Your task to perform on an android device: turn off javascript in the chrome app Image 0: 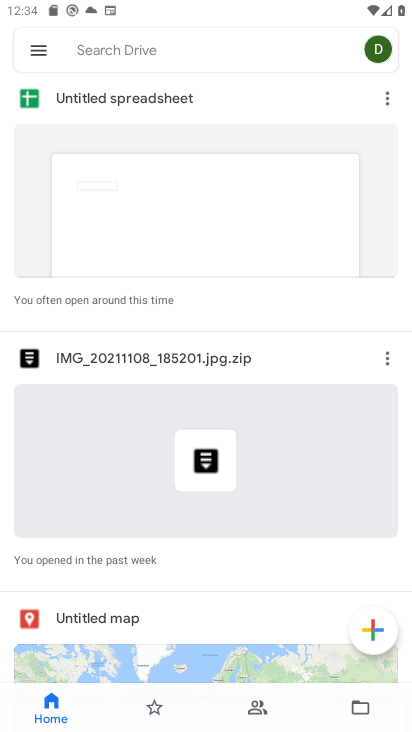
Step 0: press home button
Your task to perform on an android device: turn off javascript in the chrome app Image 1: 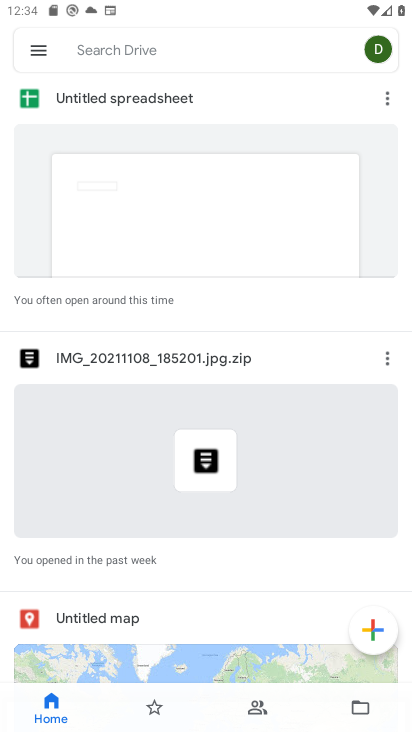
Step 1: press home button
Your task to perform on an android device: turn off javascript in the chrome app Image 2: 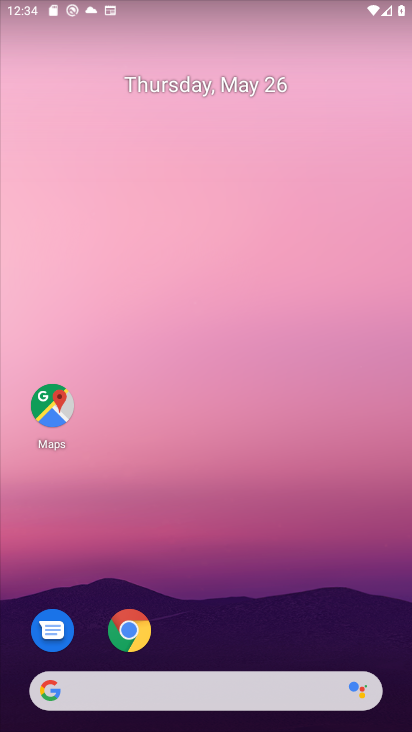
Step 2: drag from (219, 647) to (257, 12)
Your task to perform on an android device: turn off javascript in the chrome app Image 3: 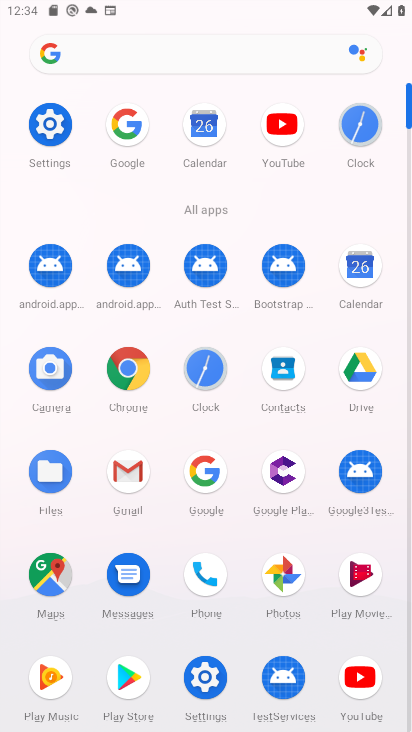
Step 3: click (126, 364)
Your task to perform on an android device: turn off javascript in the chrome app Image 4: 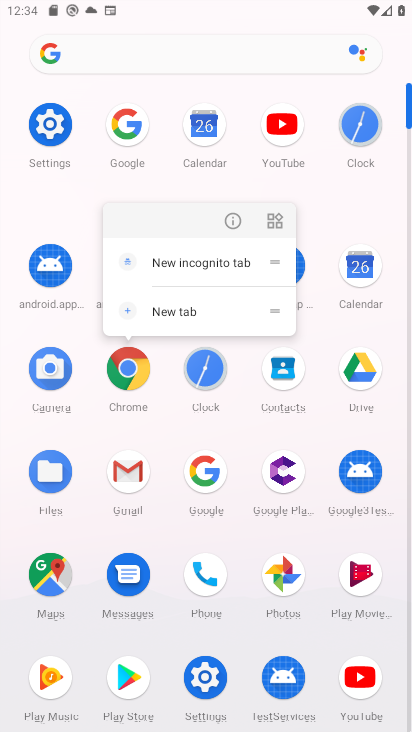
Step 4: click (124, 361)
Your task to perform on an android device: turn off javascript in the chrome app Image 5: 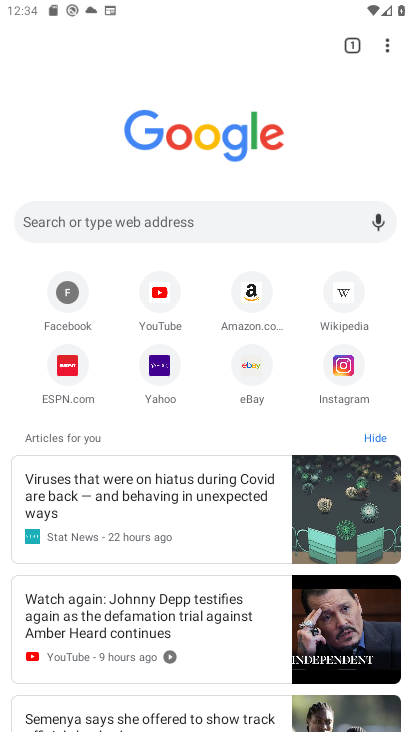
Step 5: click (386, 41)
Your task to perform on an android device: turn off javascript in the chrome app Image 6: 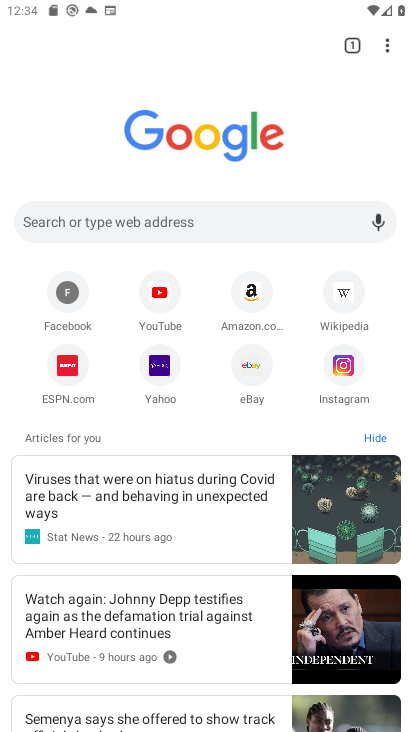
Step 6: click (384, 41)
Your task to perform on an android device: turn off javascript in the chrome app Image 7: 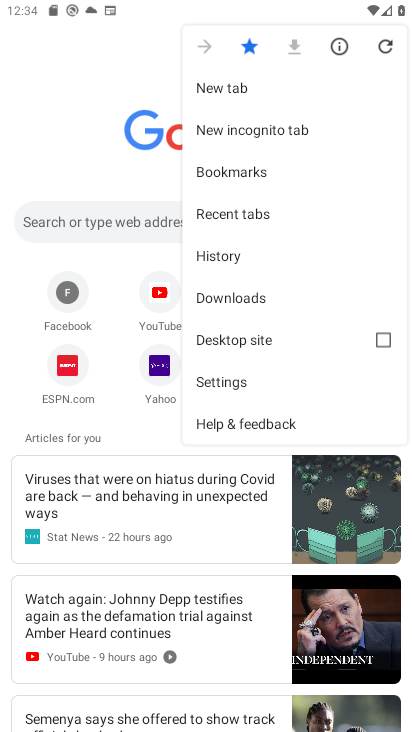
Step 7: click (255, 378)
Your task to perform on an android device: turn off javascript in the chrome app Image 8: 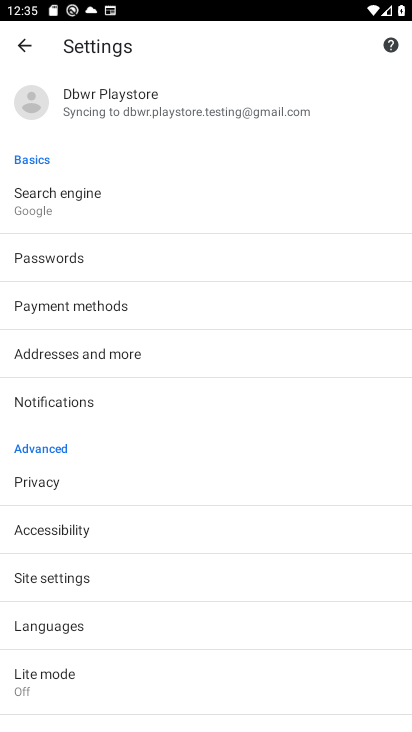
Step 8: click (103, 574)
Your task to perform on an android device: turn off javascript in the chrome app Image 9: 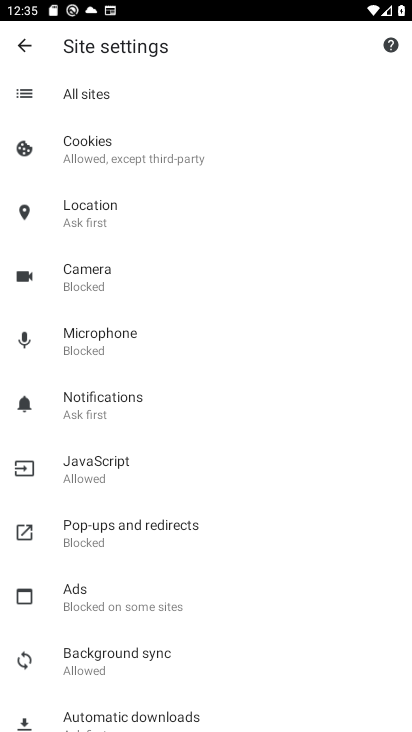
Step 9: click (111, 473)
Your task to perform on an android device: turn off javascript in the chrome app Image 10: 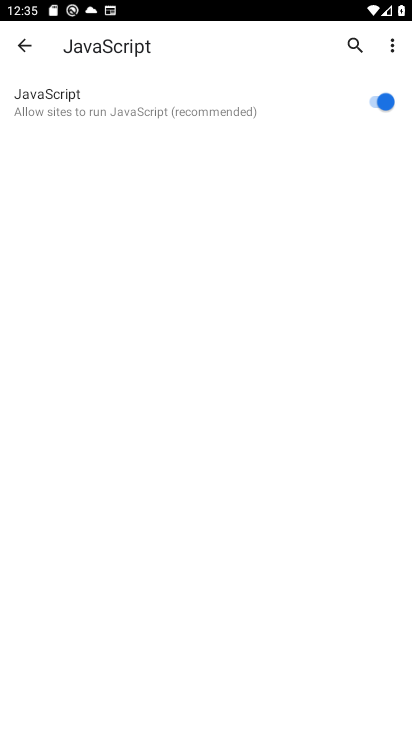
Step 10: click (375, 98)
Your task to perform on an android device: turn off javascript in the chrome app Image 11: 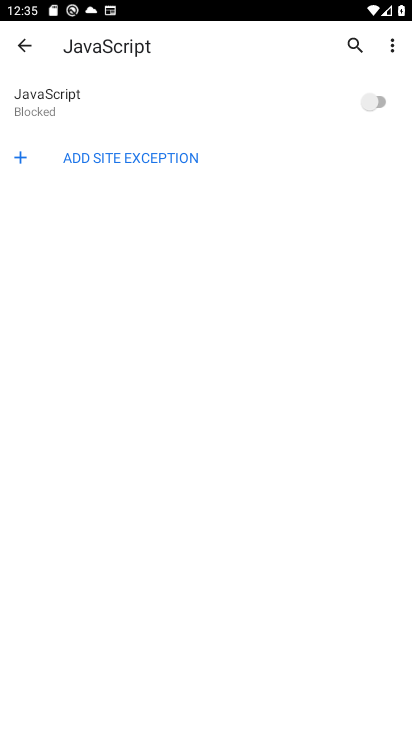
Step 11: task complete